Your task to perform on an android device: see creations saved in the google photos Image 0: 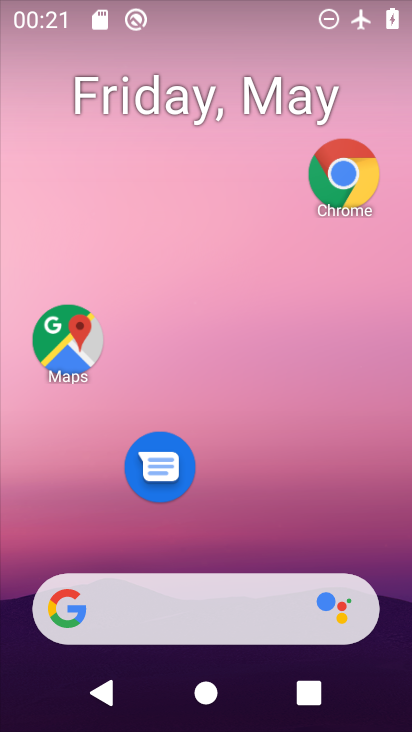
Step 0: drag from (254, 510) to (253, 224)
Your task to perform on an android device: see creations saved in the google photos Image 1: 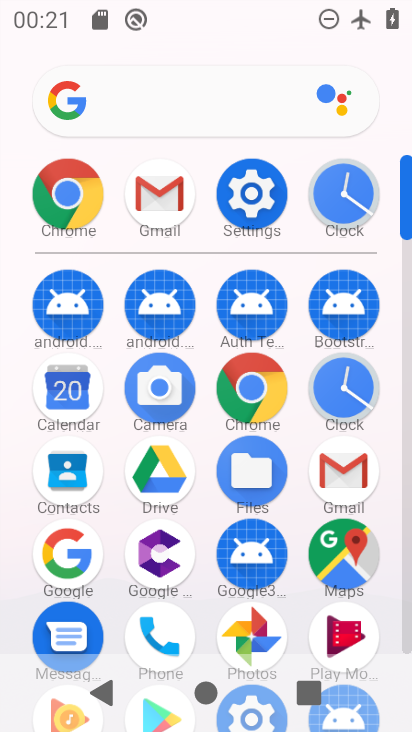
Step 1: click (256, 611)
Your task to perform on an android device: see creations saved in the google photos Image 2: 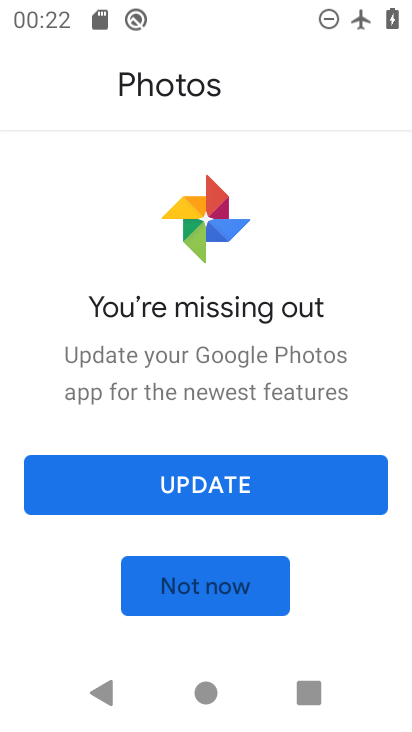
Step 2: click (228, 585)
Your task to perform on an android device: see creations saved in the google photos Image 3: 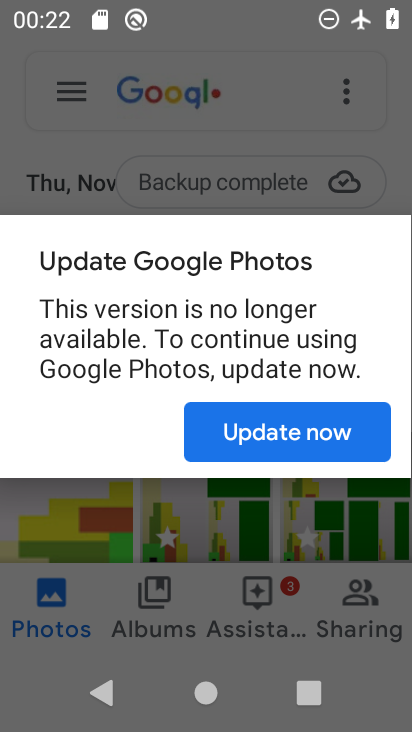
Step 3: click (319, 434)
Your task to perform on an android device: see creations saved in the google photos Image 4: 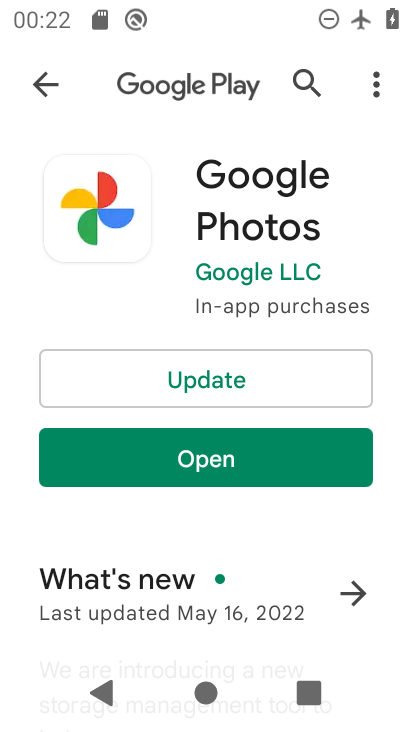
Step 4: task complete